Your task to perform on an android device: change notification settings in the gmail app Image 0: 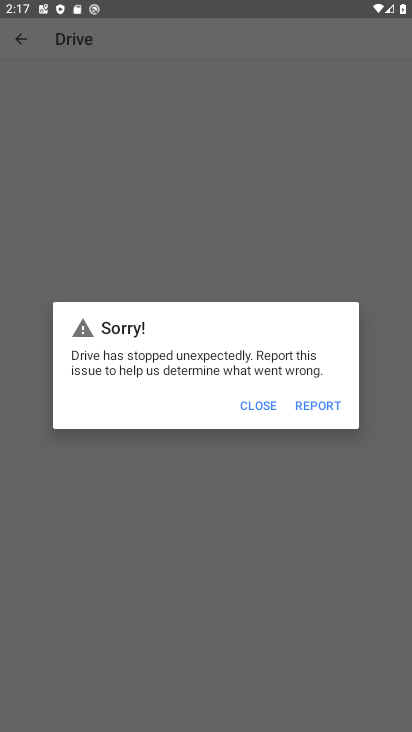
Step 0: press home button
Your task to perform on an android device: change notification settings in the gmail app Image 1: 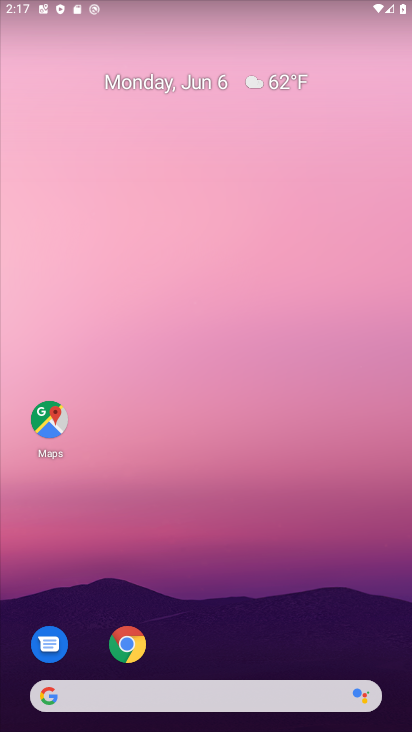
Step 1: drag from (138, 682) to (170, 108)
Your task to perform on an android device: change notification settings in the gmail app Image 2: 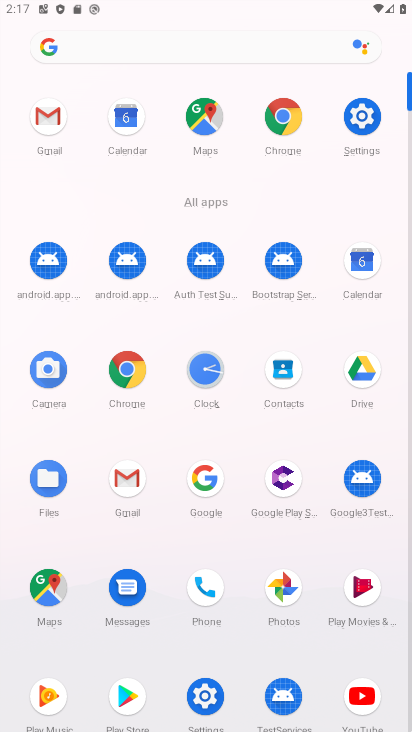
Step 2: click (133, 486)
Your task to perform on an android device: change notification settings in the gmail app Image 3: 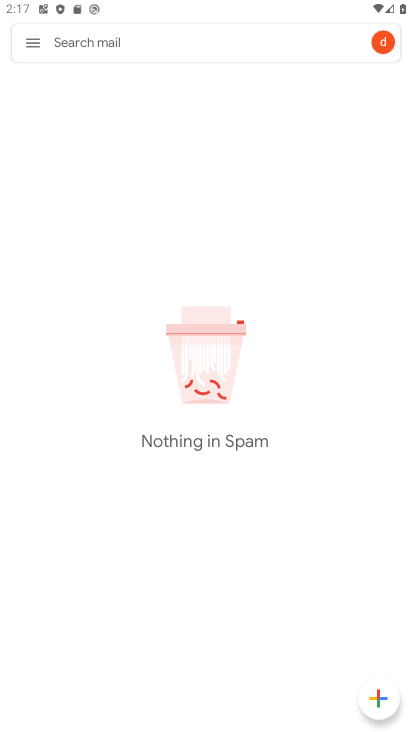
Step 3: click (40, 49)
Your task to perform on an android device: change notification settings in the gmail app Image 4: 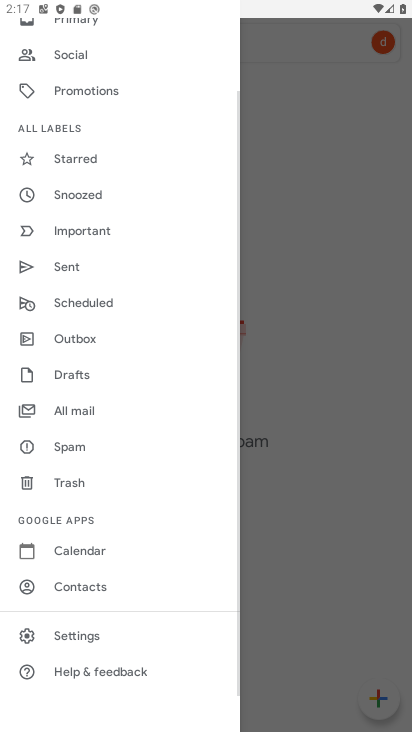
Step 4: click (78, 631)
Your task to perform on an android device: change notification settings in the gmail app Image 5: 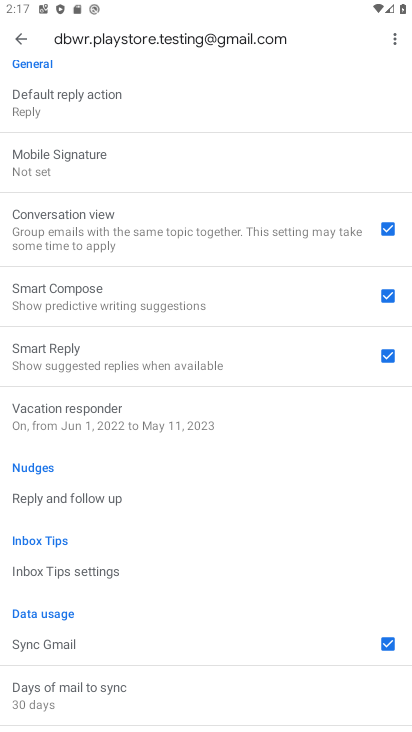
Step 5: drag from (173, 119) to (160, 683)
Your task to perform on an android device: change notification settings in the gmail app Image 6: 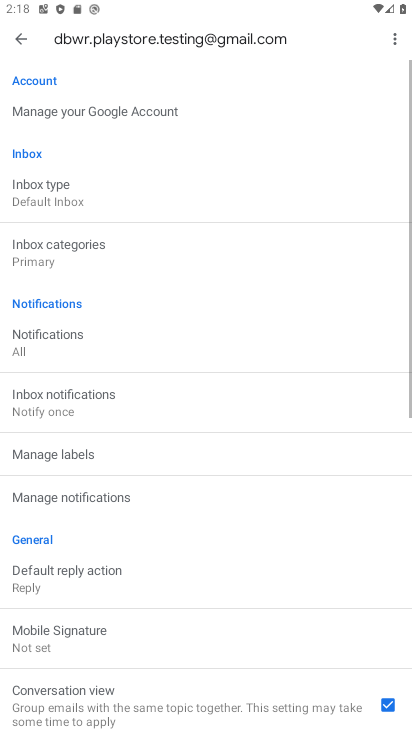
Step 6: drag from (154, 642) to (200, 270)
Your task to perform on an android device: change notification settings in the gmail app Image 7: 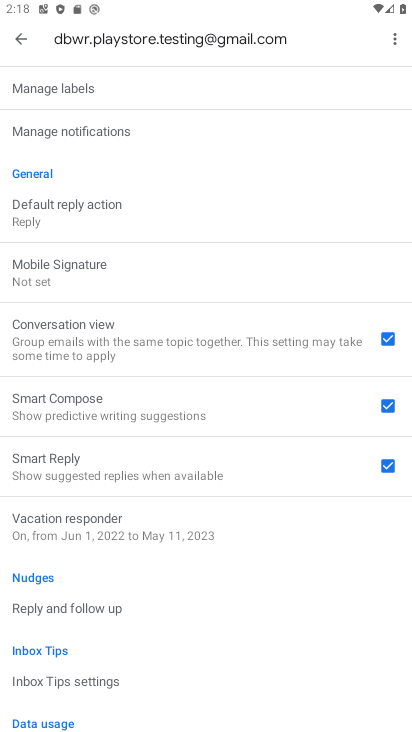
Step 7: click (126, 136)
Your task to perform on an android device: change notification settings in the gmail app Image 8: 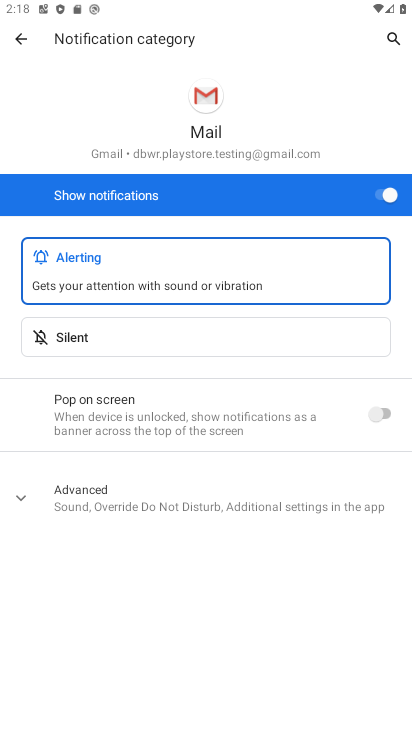
Step 8: click (379, 410)
Your task to perform on an android device: change notification settings in the gmail app Image 9: 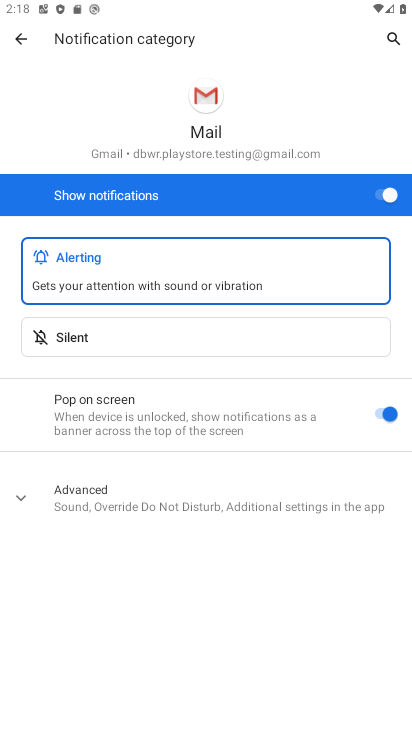
Step 9: task complete